Your task to perform on an android device: Go to accessibility settings Image 0: 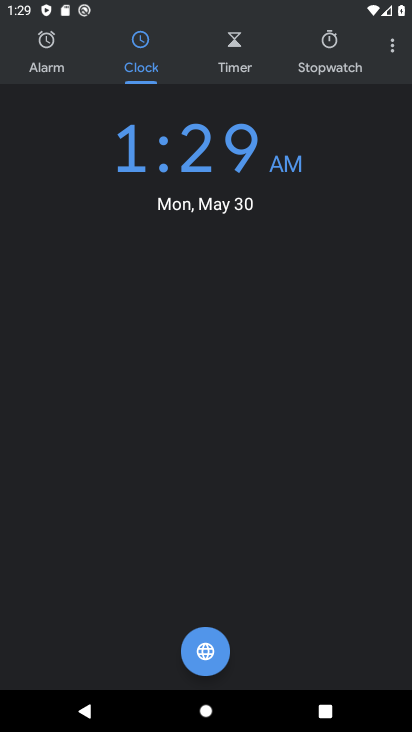
Step 0: press home button
Your task to perform on an android device: Go to accessibility settings Image 1: 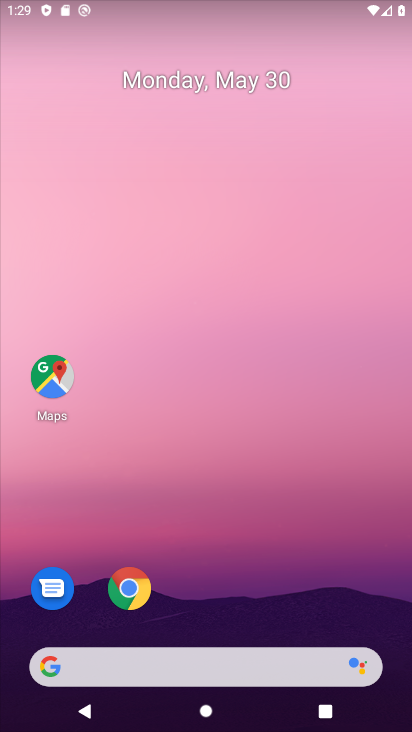
Step 1: drag from (301, 593) to (212, 4)
Your task to perform on an android device: Go to accessibility settings Image 2: 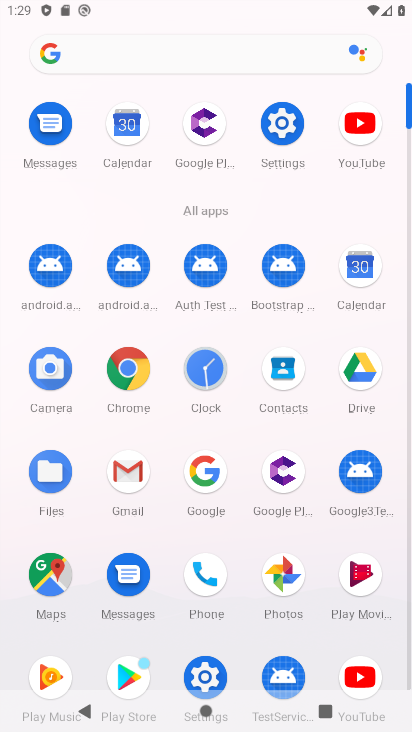
Step 2: click (263, 109)
Your task to perform on an android device: Go to accessibility settings Image 3: 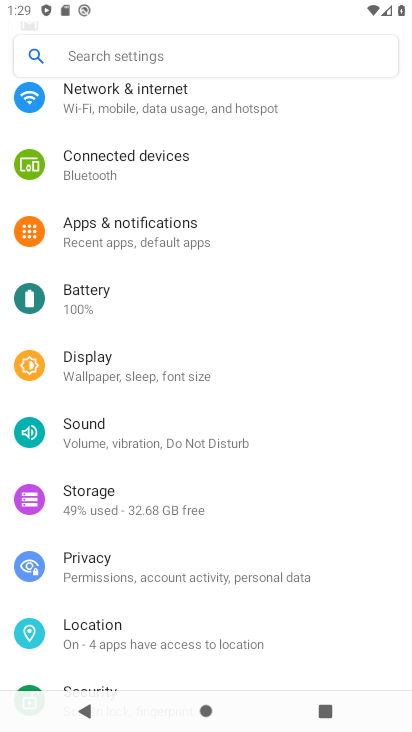
Step 3: drag from (126, 581) to (138, 28)
Your task to perform on an android device: Go to accessibility settings Image 4: 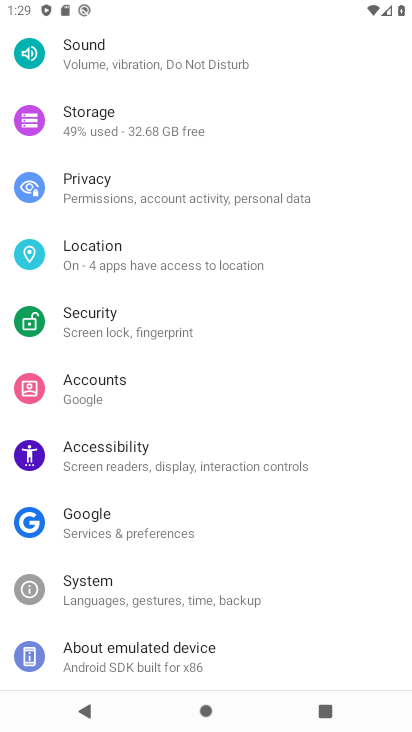
Step 4: click (148, 460)
Your task to perform on an android device: Go to accessibility settings Image 5: 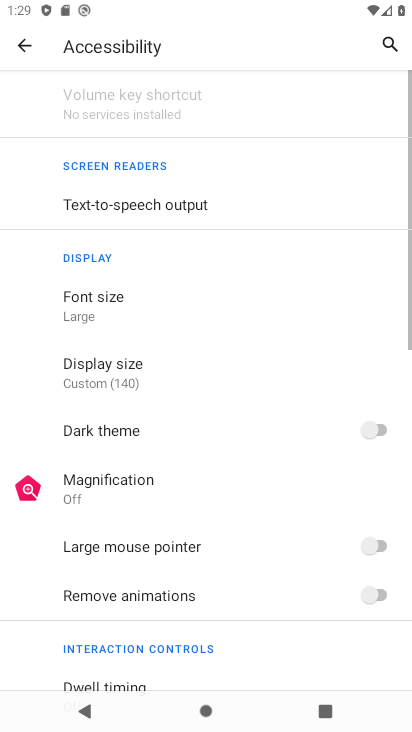
Step 5: task complete